Your task to perform on an android device: empty trash in the gmail app Image 0: 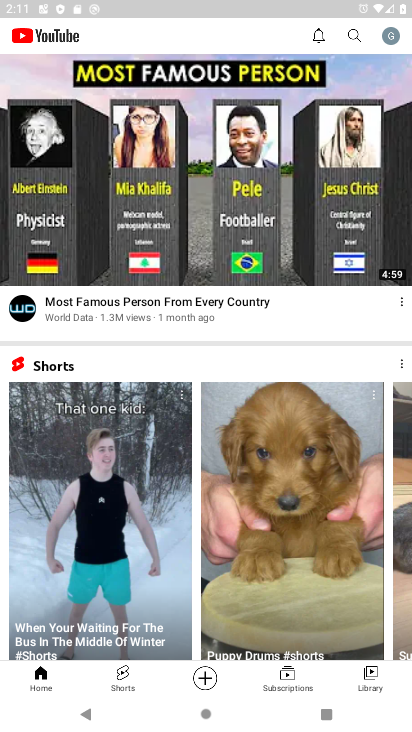
Step 0: press home button
Your task to perform on an android device: empty trash in the gmail app Image 1: 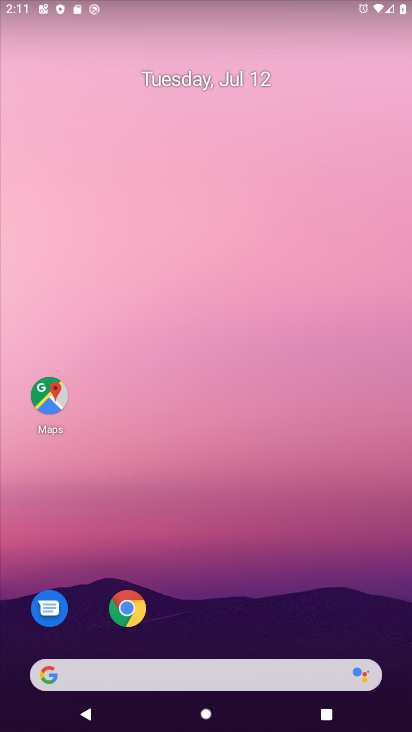
Step 1: drag from (348, 555) to (178, 129)
Your task to perform on an android device: empty trash in the gmail app Image 2: 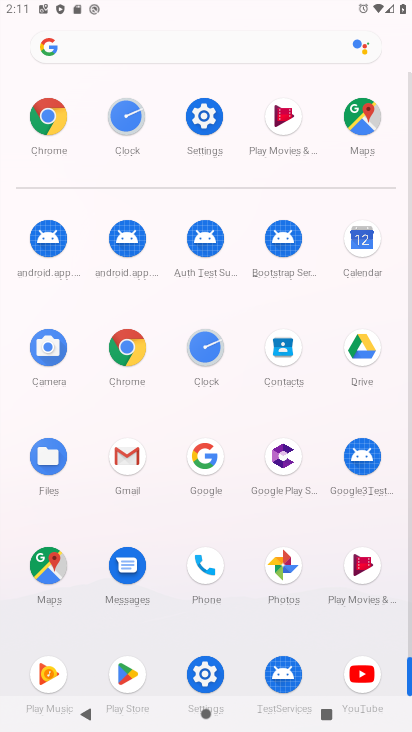
Step 2: click (126, 454)
Your task to perform on an android device: empty trash in the gmail app Image 3: 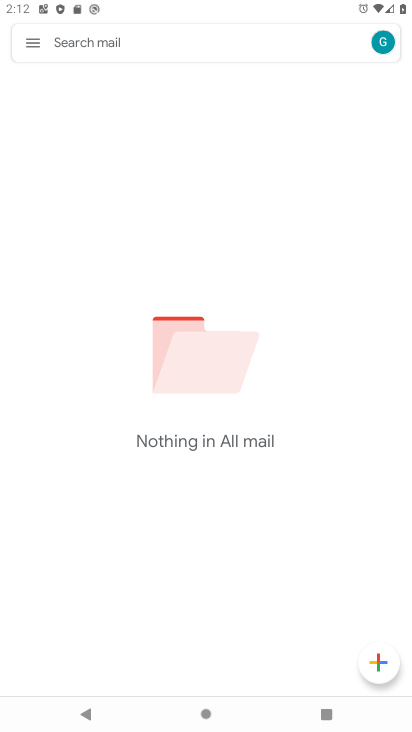
Step 3: click (35, 46)
Your task to perform on an android device: empty trash in the gmail app Image 4: 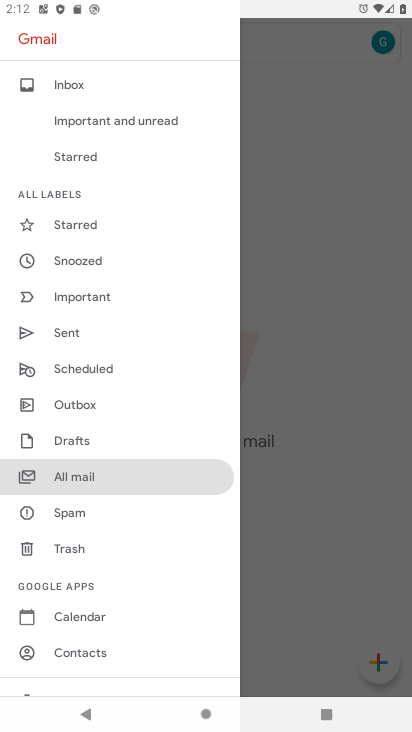
Step 4: click (70, 553)
Your task to perform on an android device: empty trash in the gmail app Image 5: 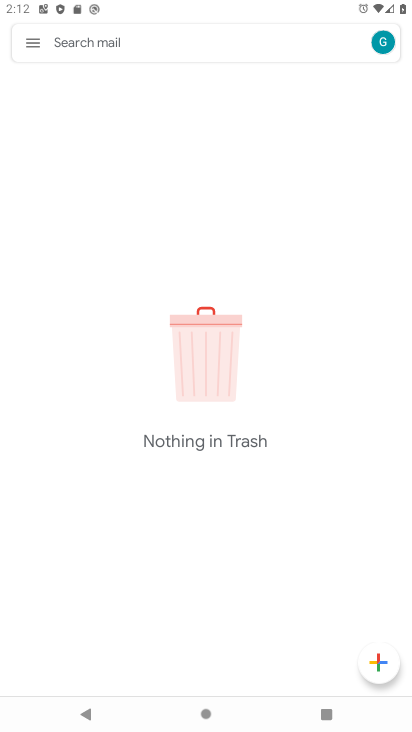
Step 5: task complete